Your task to perform on an android device: What's on my calendar today? Image 0: 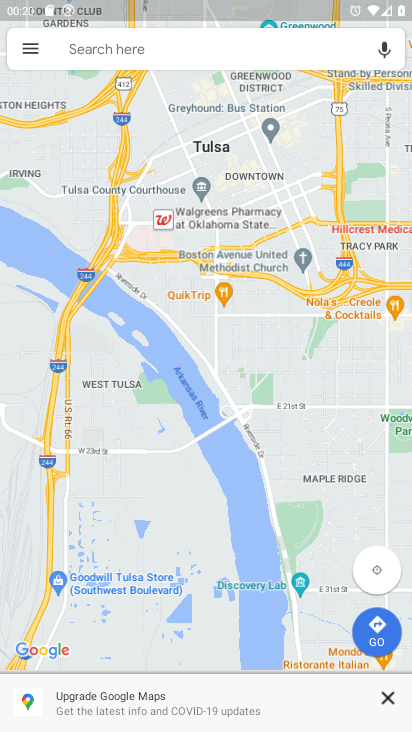
Step 0: press home button
Your task to perform on an android device: What's on my calendar today? Image 1: 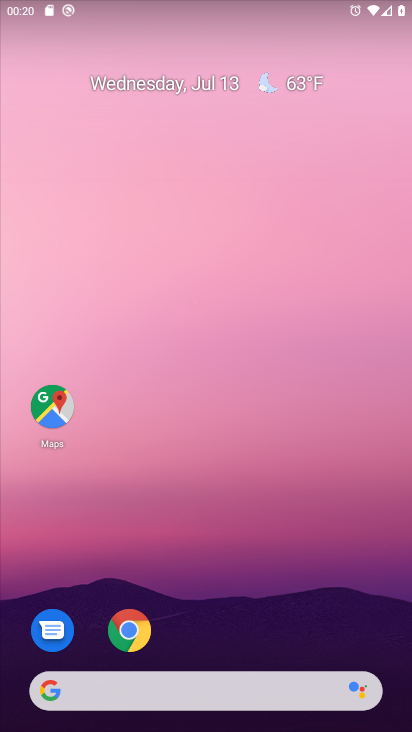
Step 1: drag from (219, 697) to (129, 319)
Your task to perform on an android device: What's on my calendar today? Image 2: 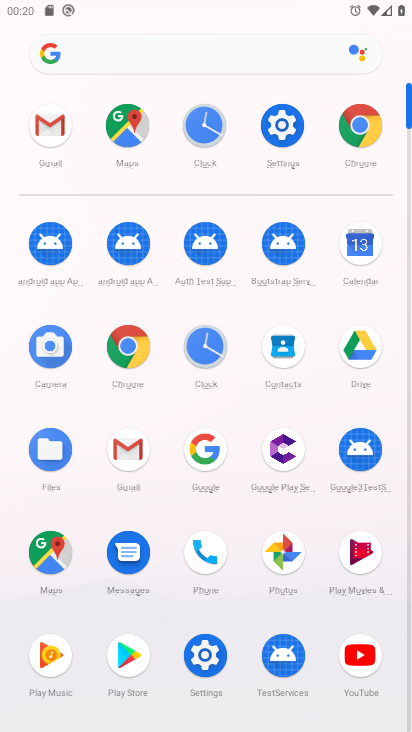
Step 2: click (366, 265)
Your task to perform on an android device: What's on my calendar today? Image 3: 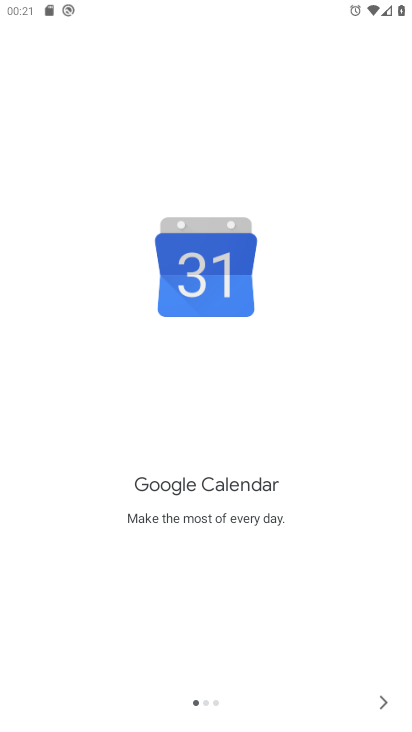
Step 3: click (379, 698)
Your task to perform on an android device: What's on my calendar today? Image 4: 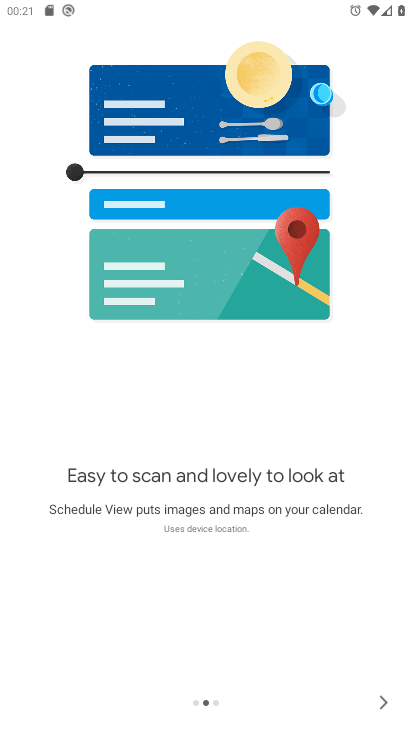
Step 4: click (379, 698)
Your task to perform on an android device: What's on my calendar today? Image 5: 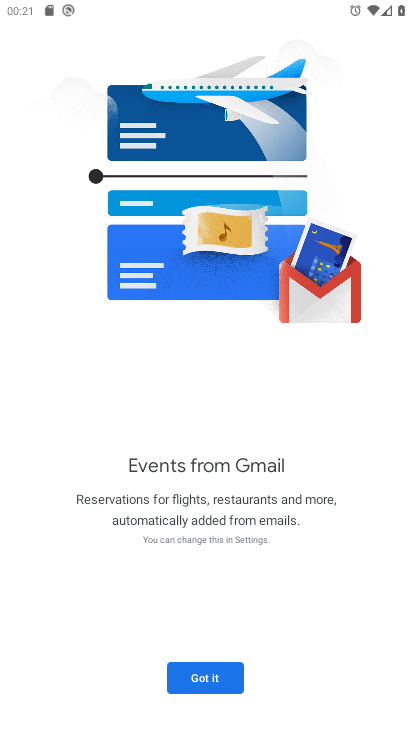
Step 5: click (194, 673)
Your task to perform on an android device: What's on my calendar today? Image 6: 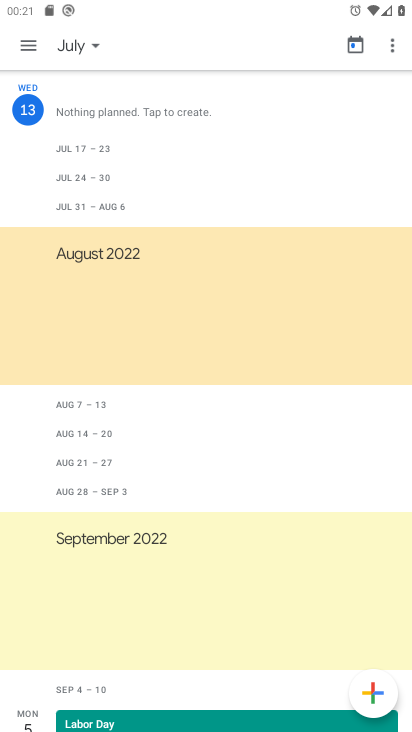
Step 6: task complete